Your task to perform on an android device: allow notifications from all sites in the chrome app Image 0: 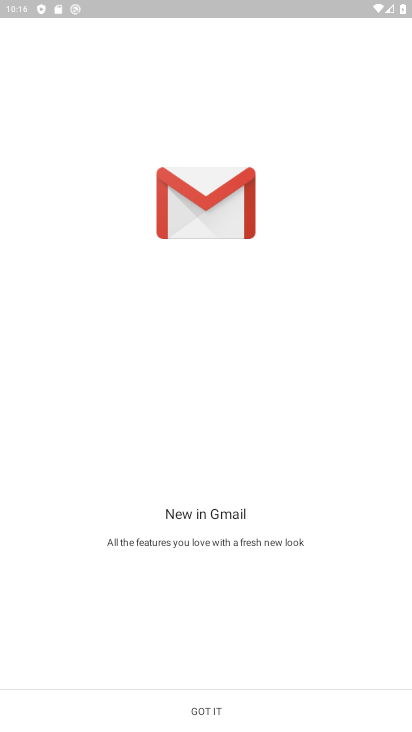
Step 0: press home button
Your task to perform on an android device: allow notifications from all sites in the chrome app Image 1: 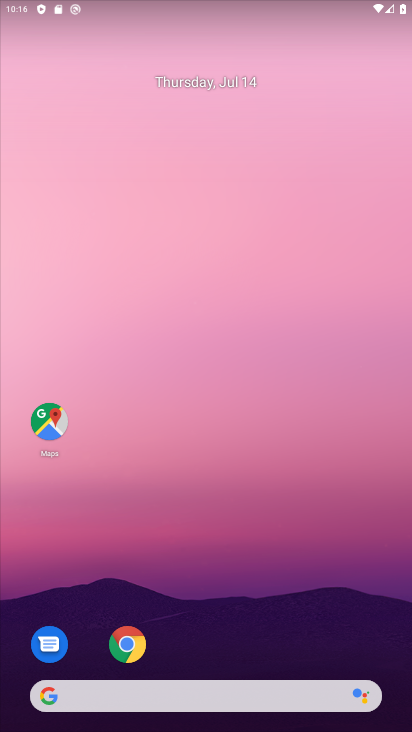
Step 1: click (131, 650)
Your task to perform on an android device: allow notifications from all sites in the chrome app Image 2: 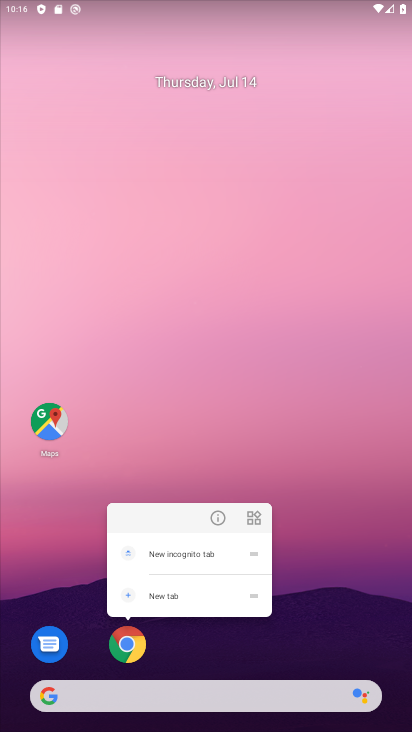
Step 2: click (127, 640)
Your task to perform on an android device: allow notifications from all sites in the chrome app Image 3: 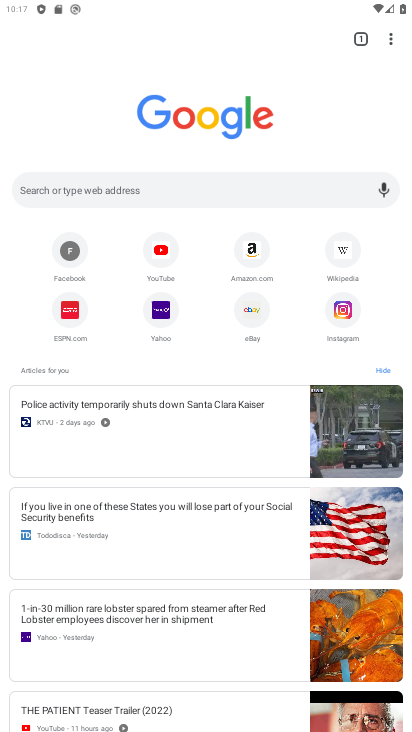
Step 3: drag from (390, 41) to (282, 329)
Your task to perform on an android device: allow notifications from all sites in the chrome app Image 4: 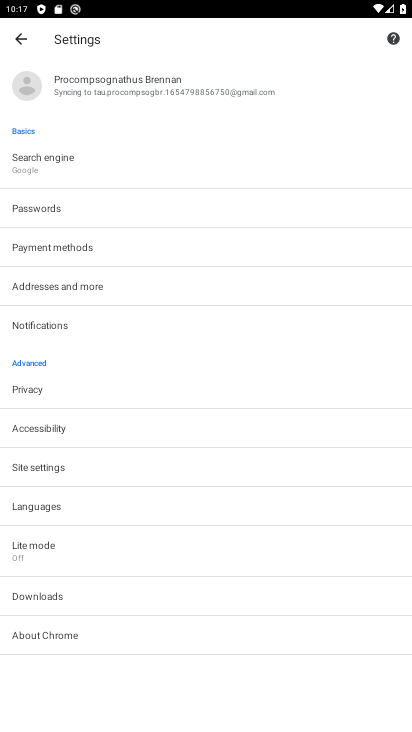
Step 4: click (51, 470)
Your task to perform on an android device: allow notifications from all sites in the chrome app Image 5: 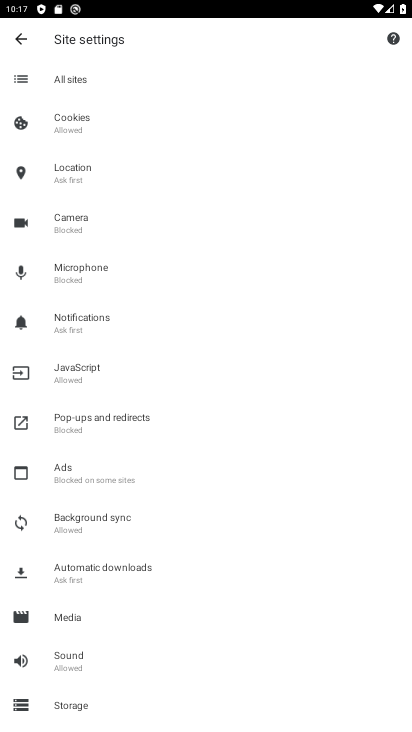
Step 5: click (87, 327)
Your task to perform on an android device: allow notifications from all sites in the chrome app Image 6: 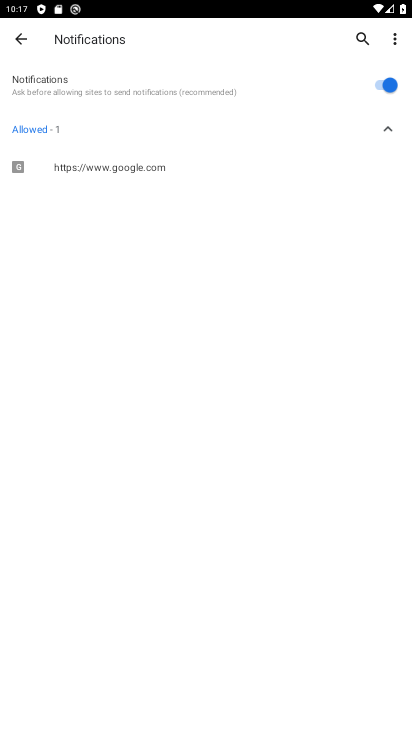
Step 6: task complete